Your task to perform on an android device: What's the weather going to be tomorrow? Image 0: 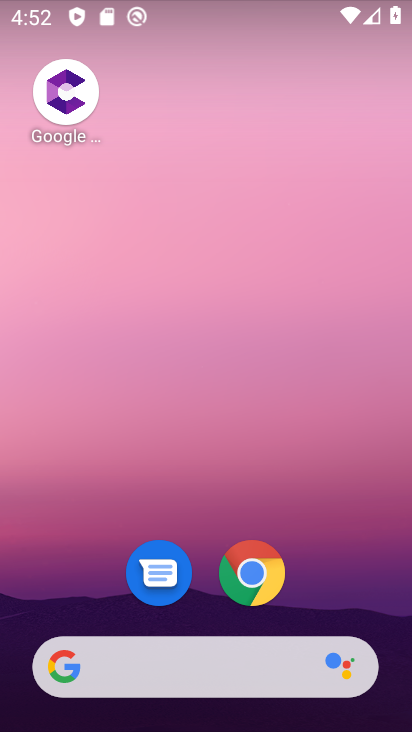
Step 0: click (134, 670)
Your task to perform on an android device: What's the weather going to be tomorrow? Image 1: 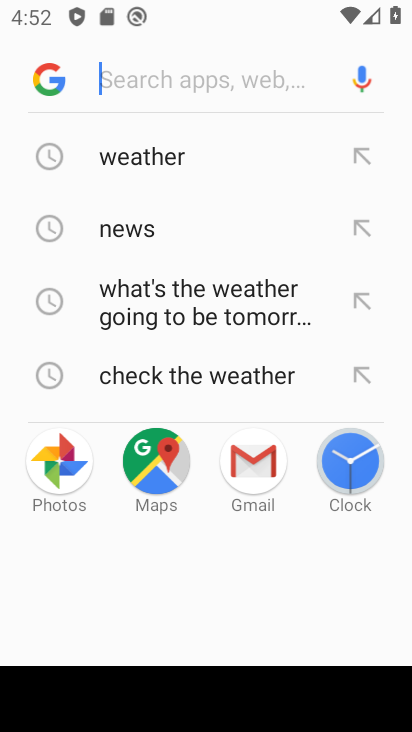
Step 1: click (138, 162)
Your task to perform on an android device: What's the weather going to be tomorrow? Image 2: 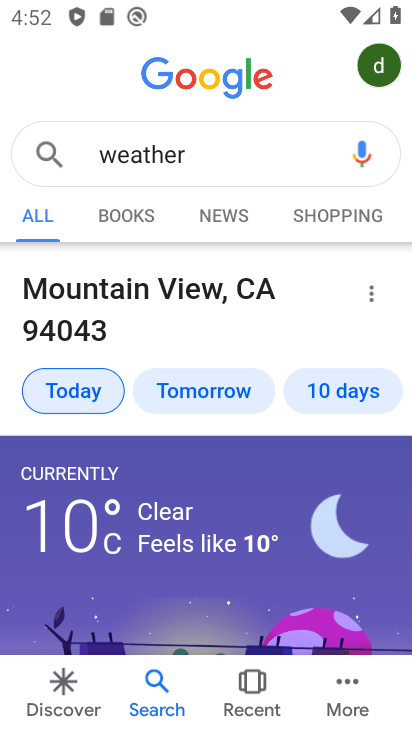
Step 2: click (180, 389)
Your task to perform on an android device: What's the weather going to be tomorrow? Image 3: 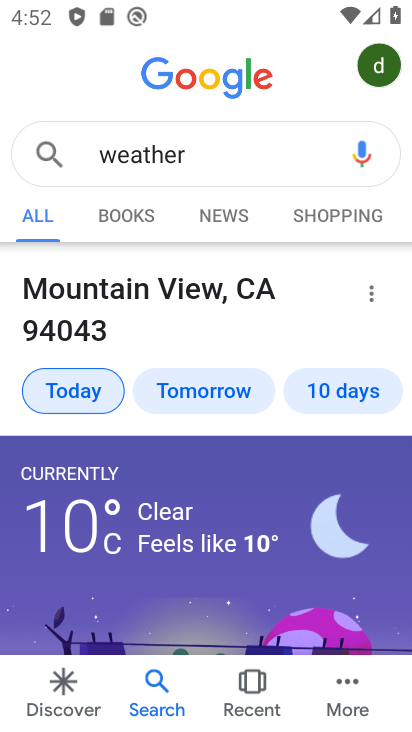
Step 3: click (207, 388)
Your task to perform on an android device: What's the weather going to be tomorrow? Image 4: 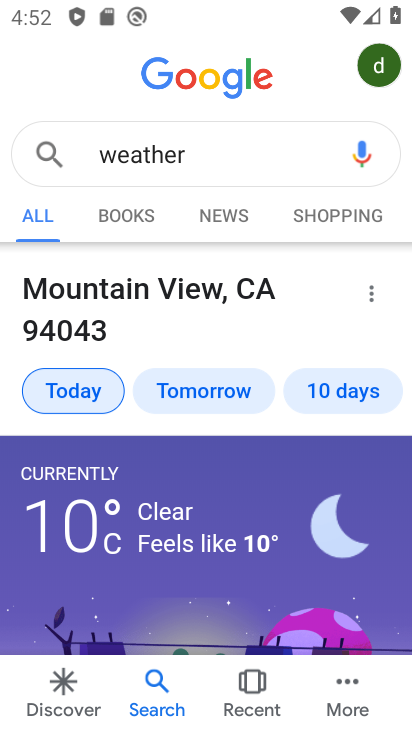
Step 4: click (215, 391)
Your task to perform on an android device: What's the weather going to be tomorrow? Image 5: 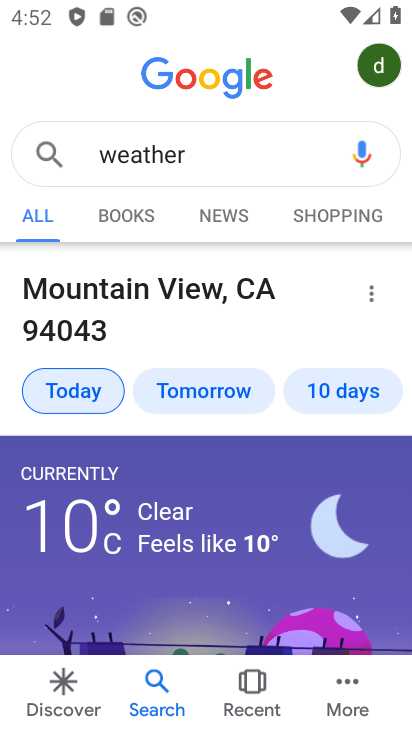
Step 5: click (215, 391)
Your task to perform on an android device: What's the weather going to be tomorrow? Image 6: 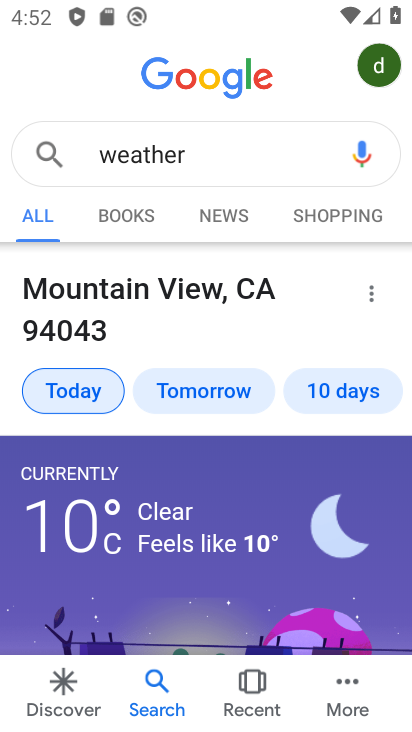
Step 6: task complete